Your task to perform on an android device: Go to settings Image 0: 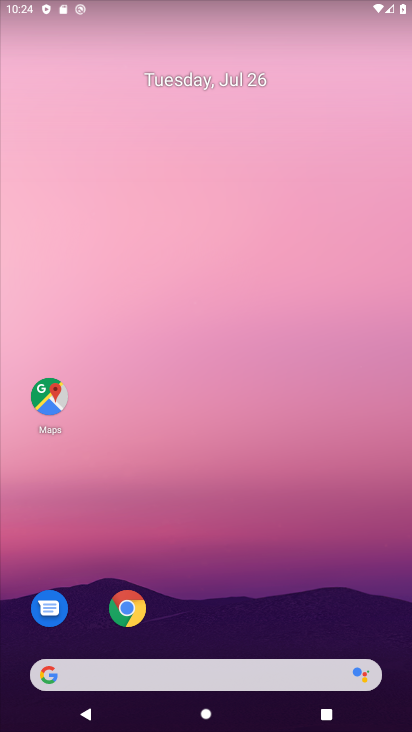
Step 0: drag from (297, 618) to (330, 38)
Your task to perform on an android device: Go to settings Image 1: 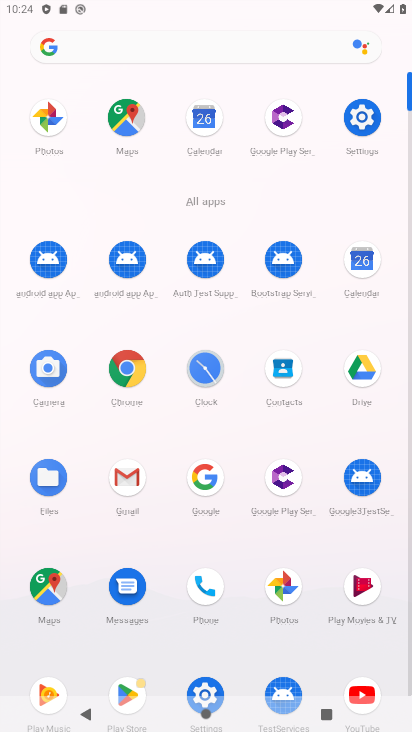
Step 1: click (359, 118)
Your task to perform on an android device: Go to settings Image 2: 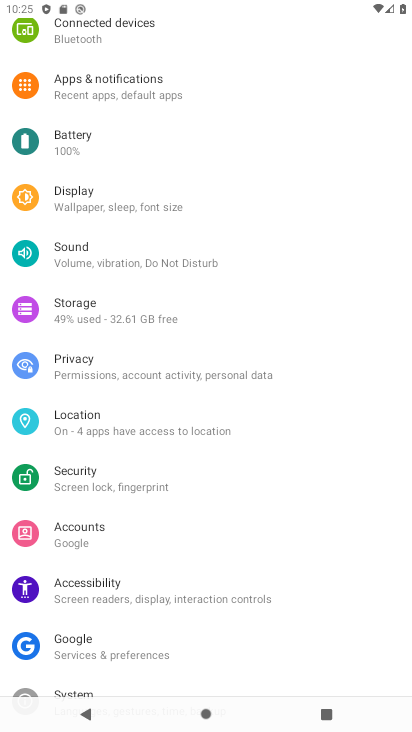
Step 2: task complete